Your task to perform on an android device: What is the news today? Image 0: 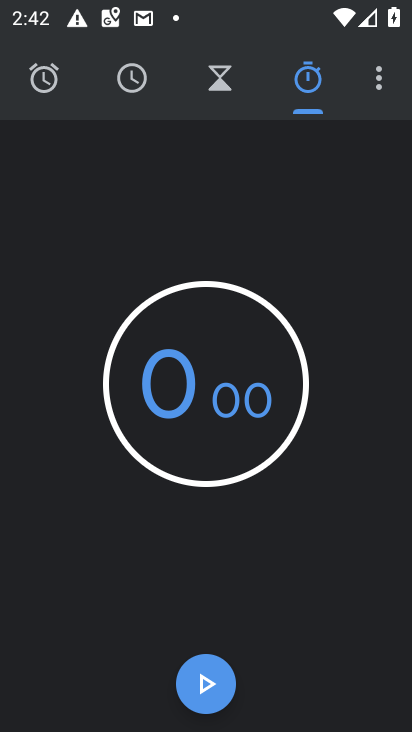
Step 0: press home button
Your task to perform on an android device: What is the news today? Image 1: 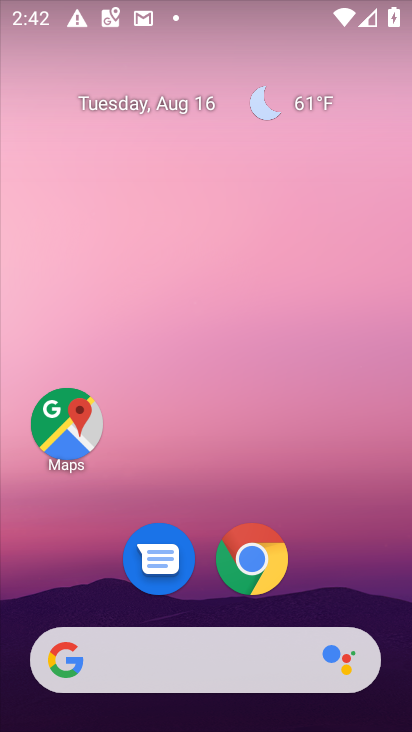
Step 1: task complete